Your task to perform on an android device: change notification settings in the gmail app Image 0: 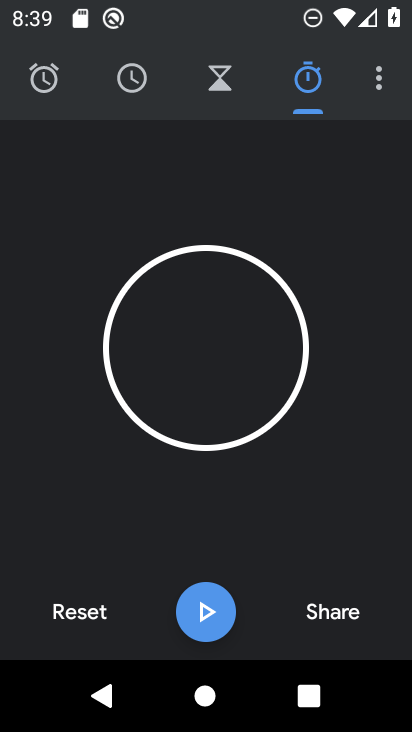
Step 0: press home button
Your task to perform on an android device: change notification settings in the gmail app Image 1: 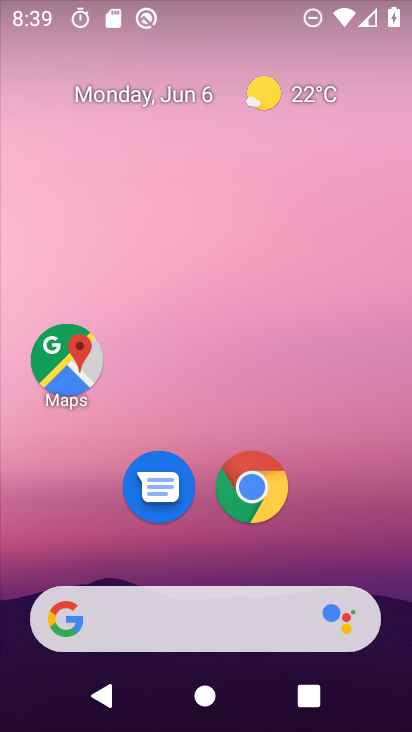
Step 1: drag from (386, 632) to (374, 297)
Your task to perform on an android device: change notification settings in the gmail app Image 2: 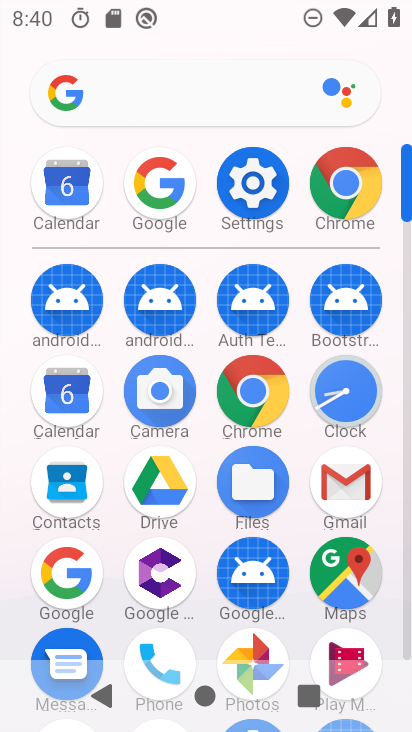
Step 2: click (351, 482)
Your task to perform on an android device: change notification settings in the gmail app Image 3: 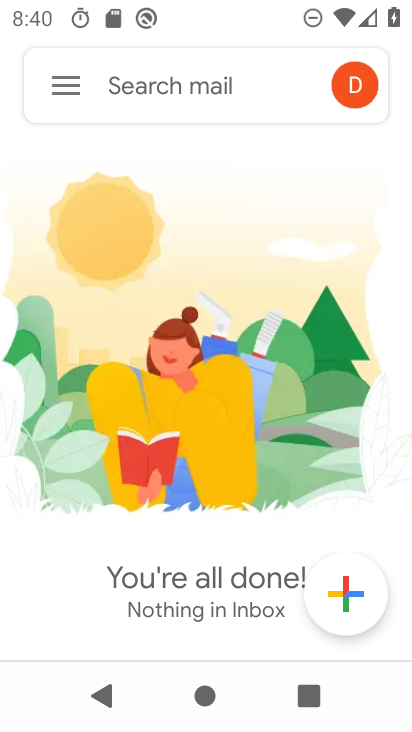
Step 3: click (77, 69)
Your task to perform on an android device: change notification settings in the gmail app Image 4: 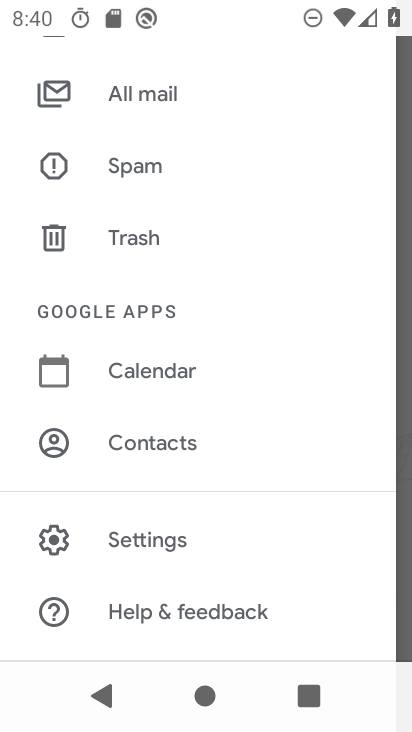
Step 4: click (171, 538)
Your task to perform on an android device: change notification settings in the gmail app Image 5: 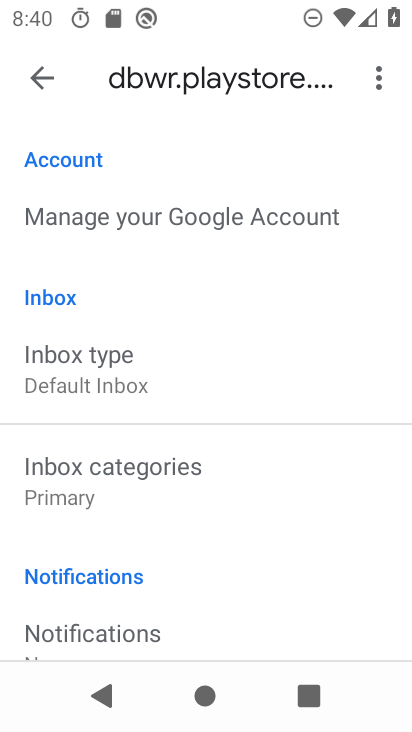
Step 5: click (140, 647)
Your task to perform on an android device: change notification settings in the gmail app Image 6: 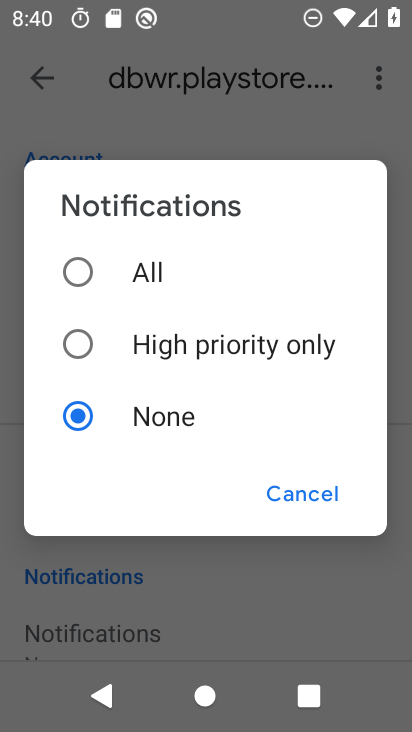
Step 6: click (77, 268)
Your task to perform on an android device: change notification settings in the gmail app Image 7: 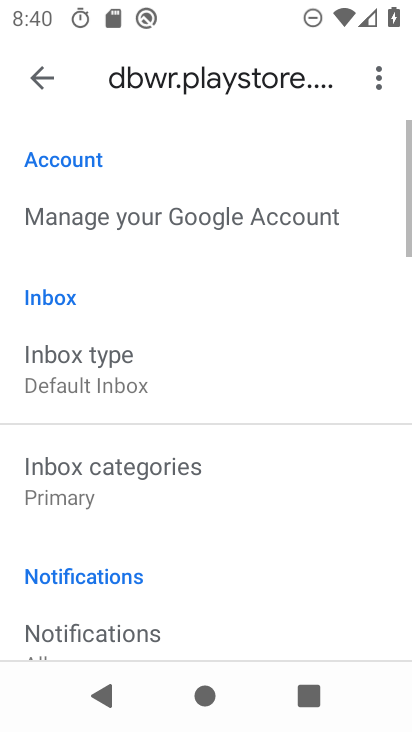
Step 7: task complete